Your task to perform on an android device: turn off notifications in google photos Image 0: 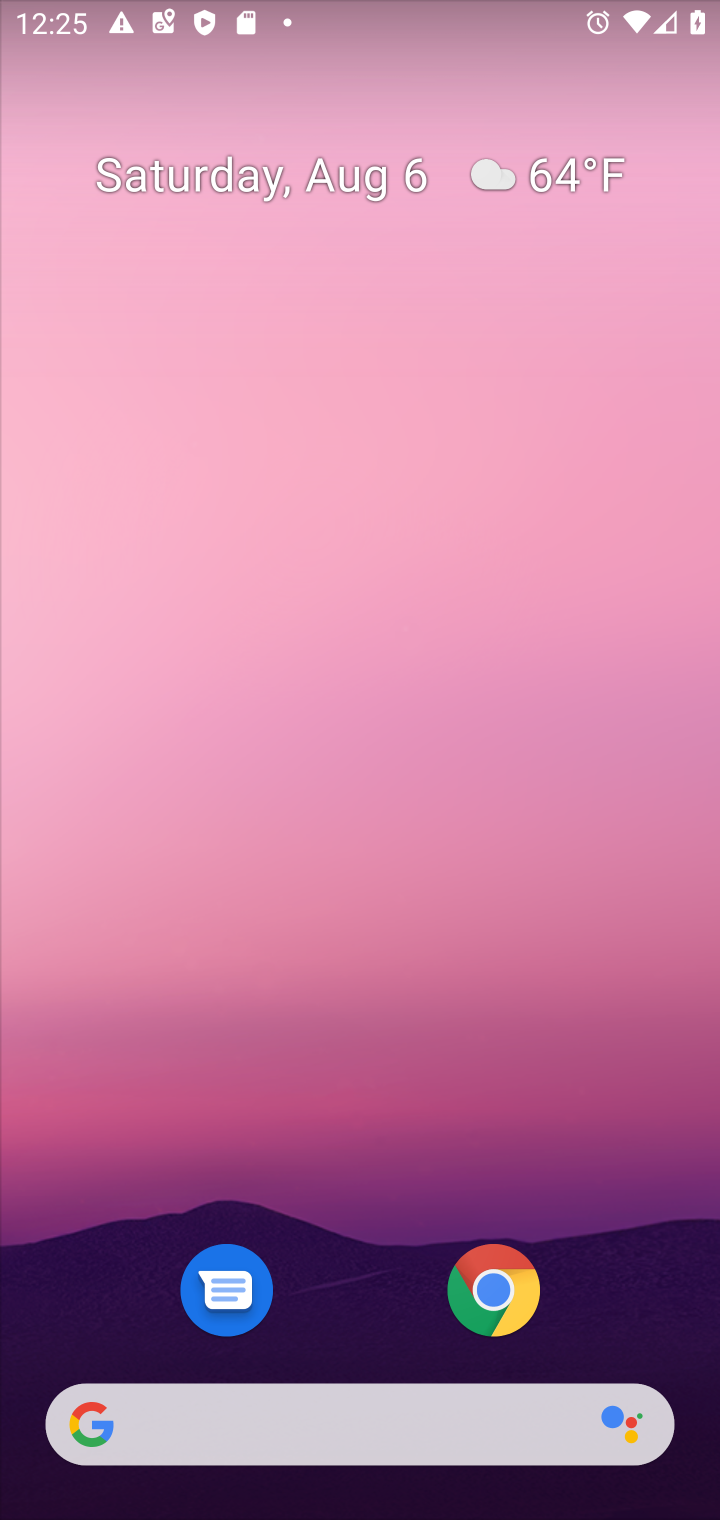
Step 0: press home button
Your task to perform on an android device: turn off notifications in google photos Image 1: 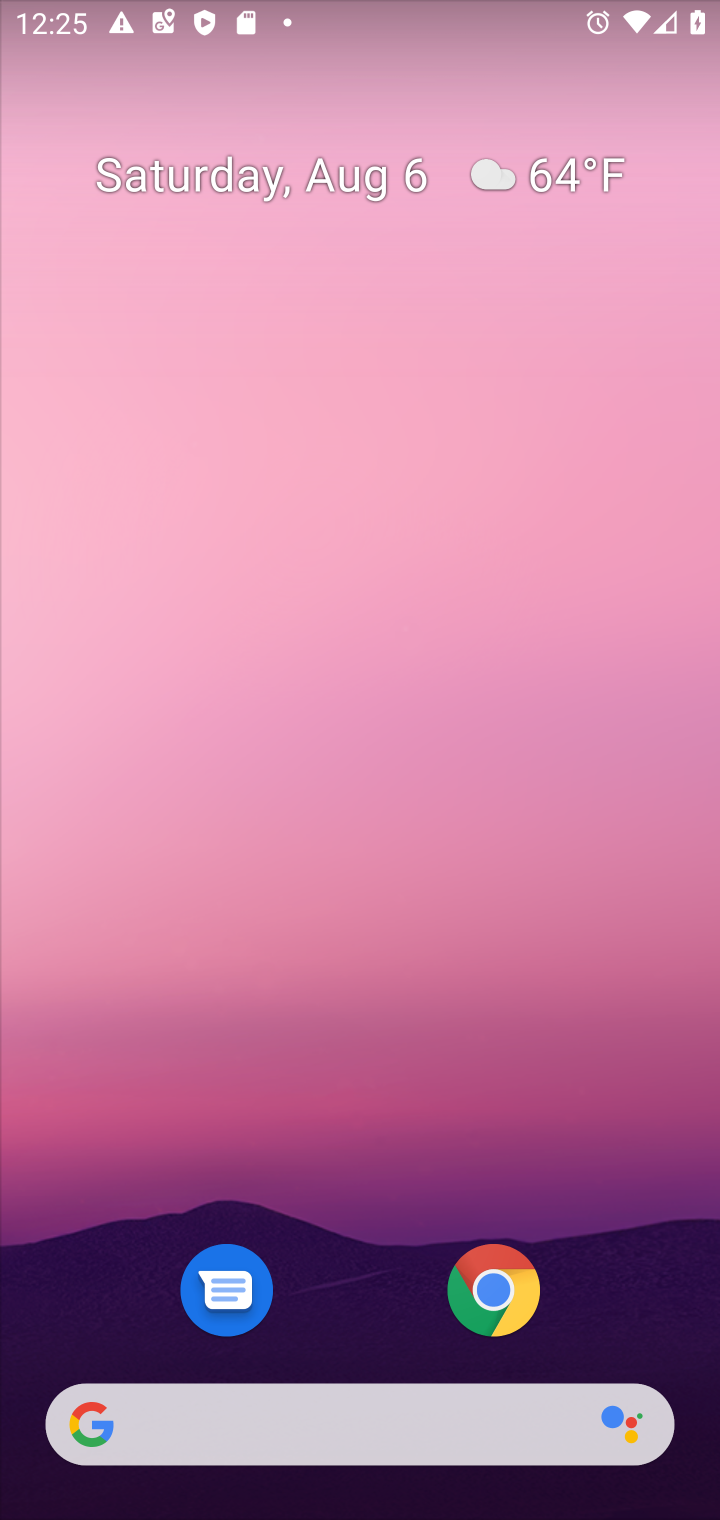
Step 1: drag from (388, 1330) to (384, 104)
Your task to perform on an android device: turn off notifications in google photos Image 2: 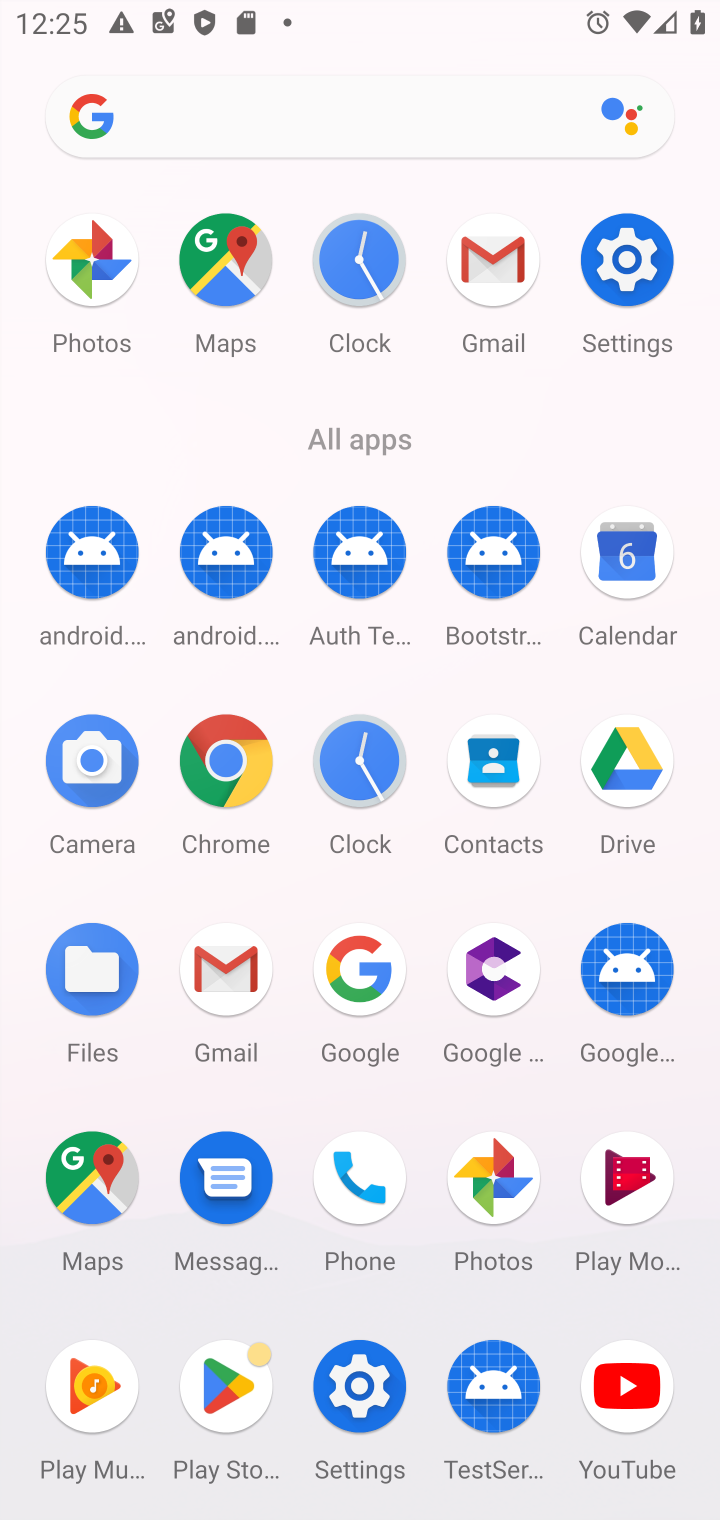
Step 2: click (487, 1157)
Your task to perform on an android device: turn off notifications in google photos Image 3: 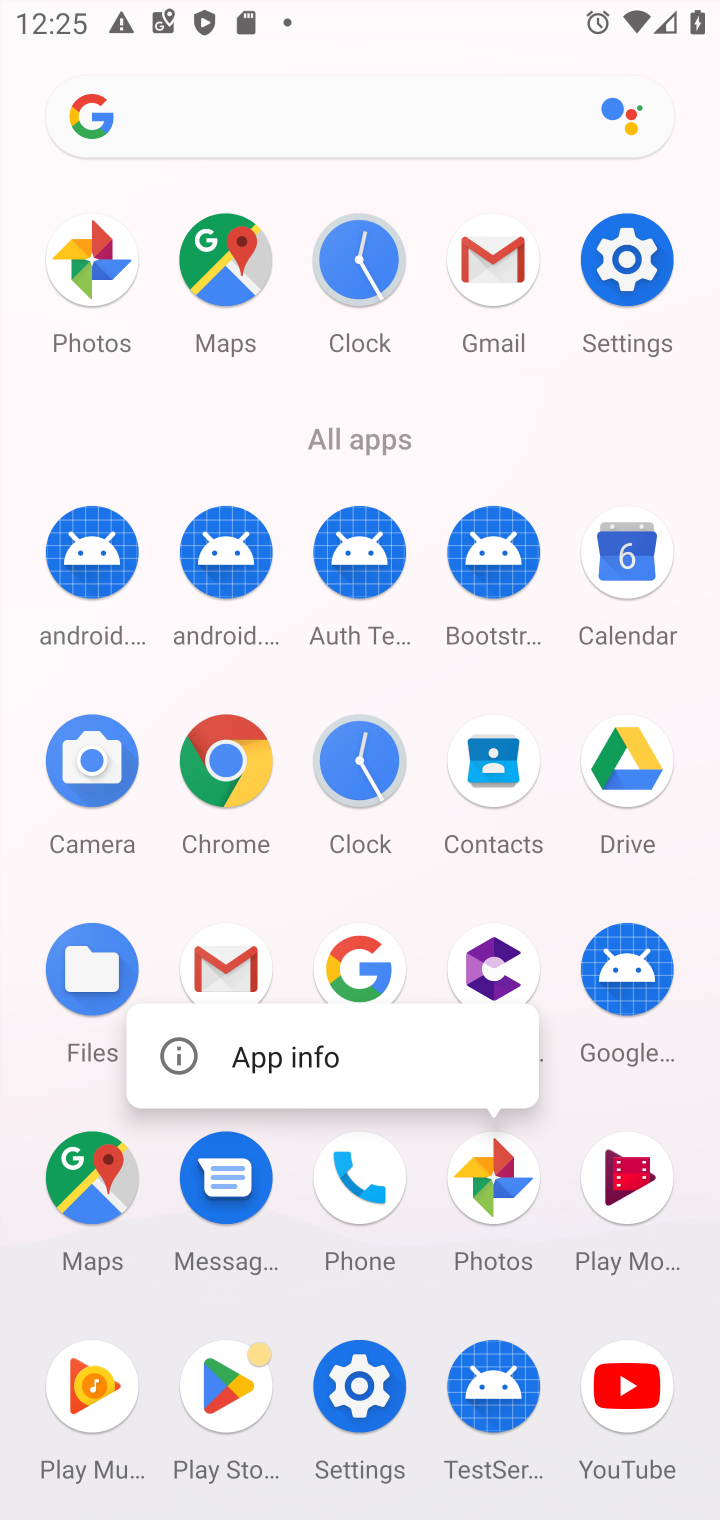
Step 3: click (489, 1168)
Your task to perform on an android device: turn off notifications in google photos Image 4: 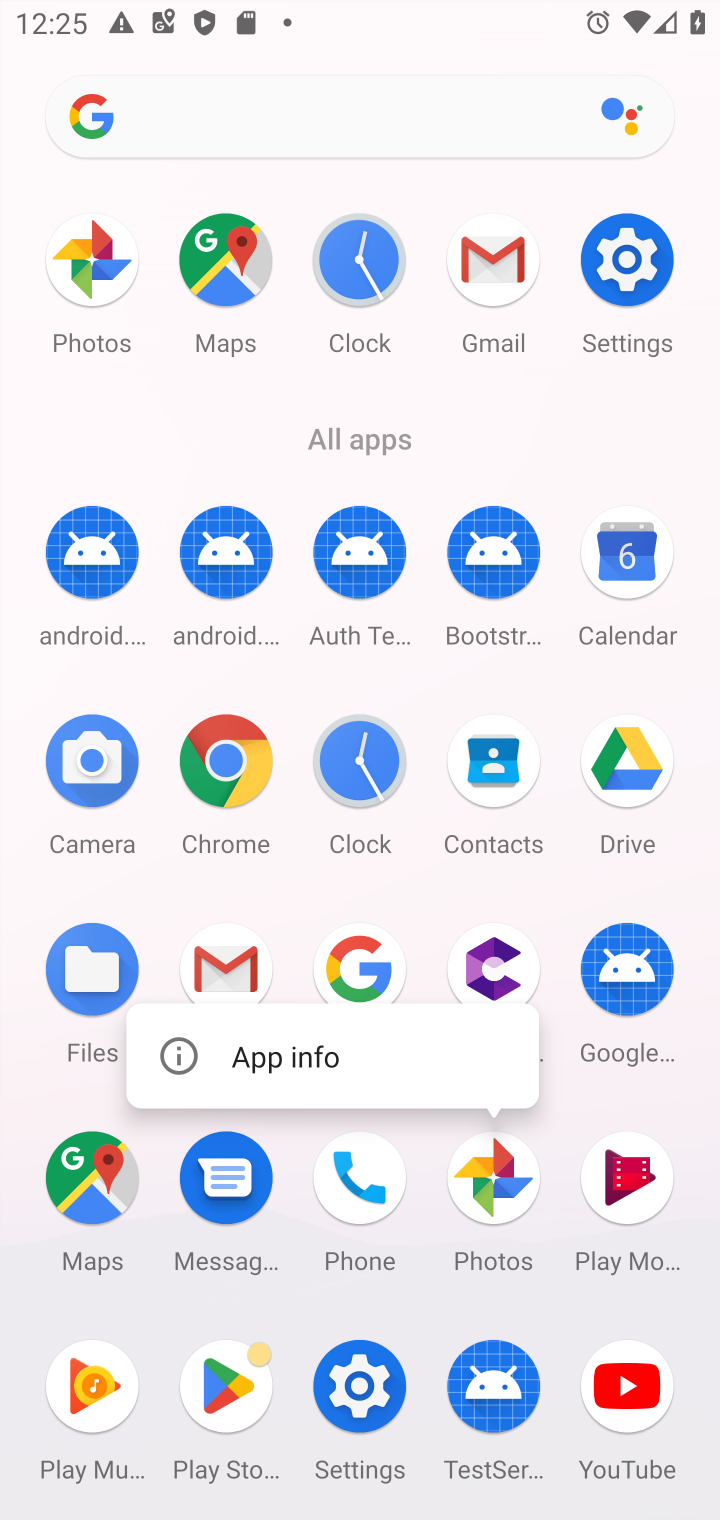
Step 4: click (492, 1174)
Your task to perform on an android device: turn off notifications in google photos Image 5: 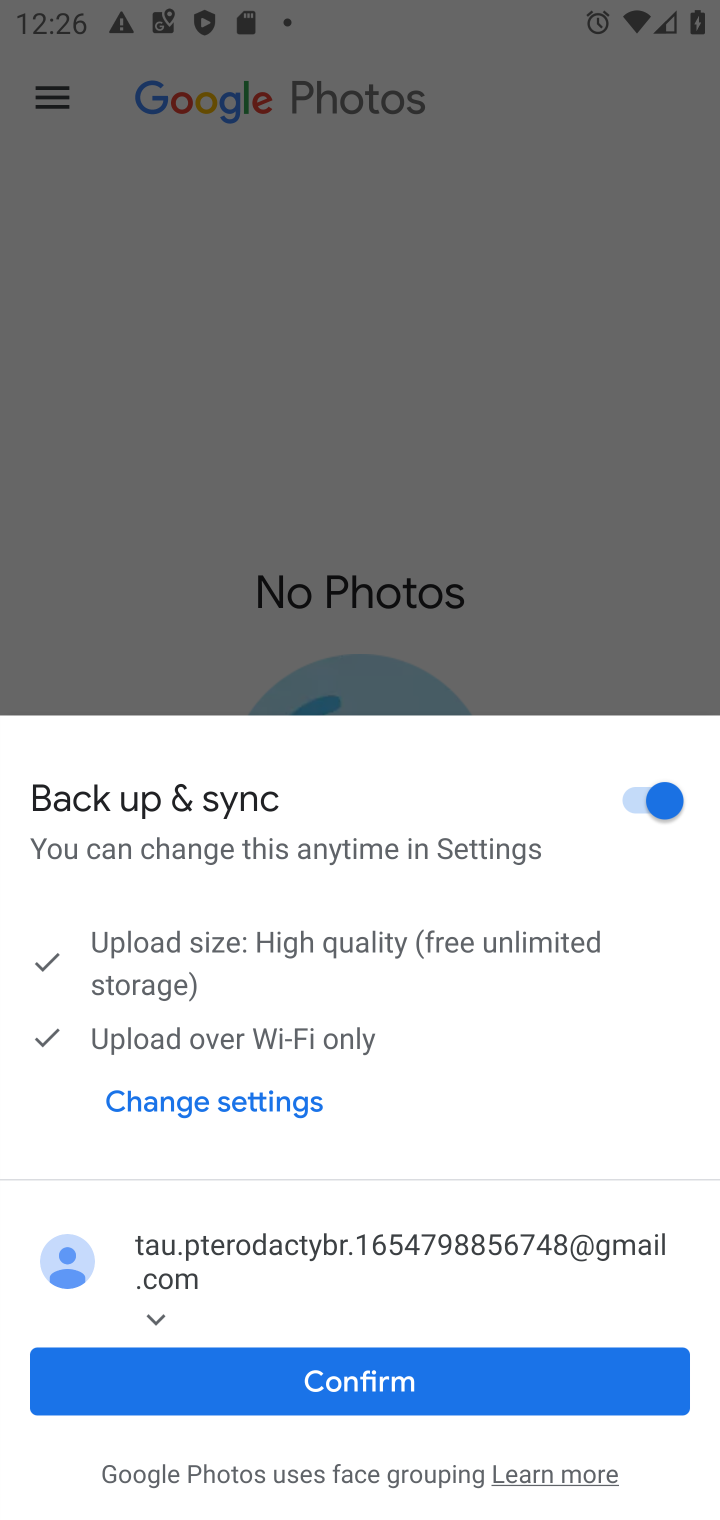
Step 5: click (367, 1371)
Your task to perform on an android device: turn off notifications in google photos Image 6: 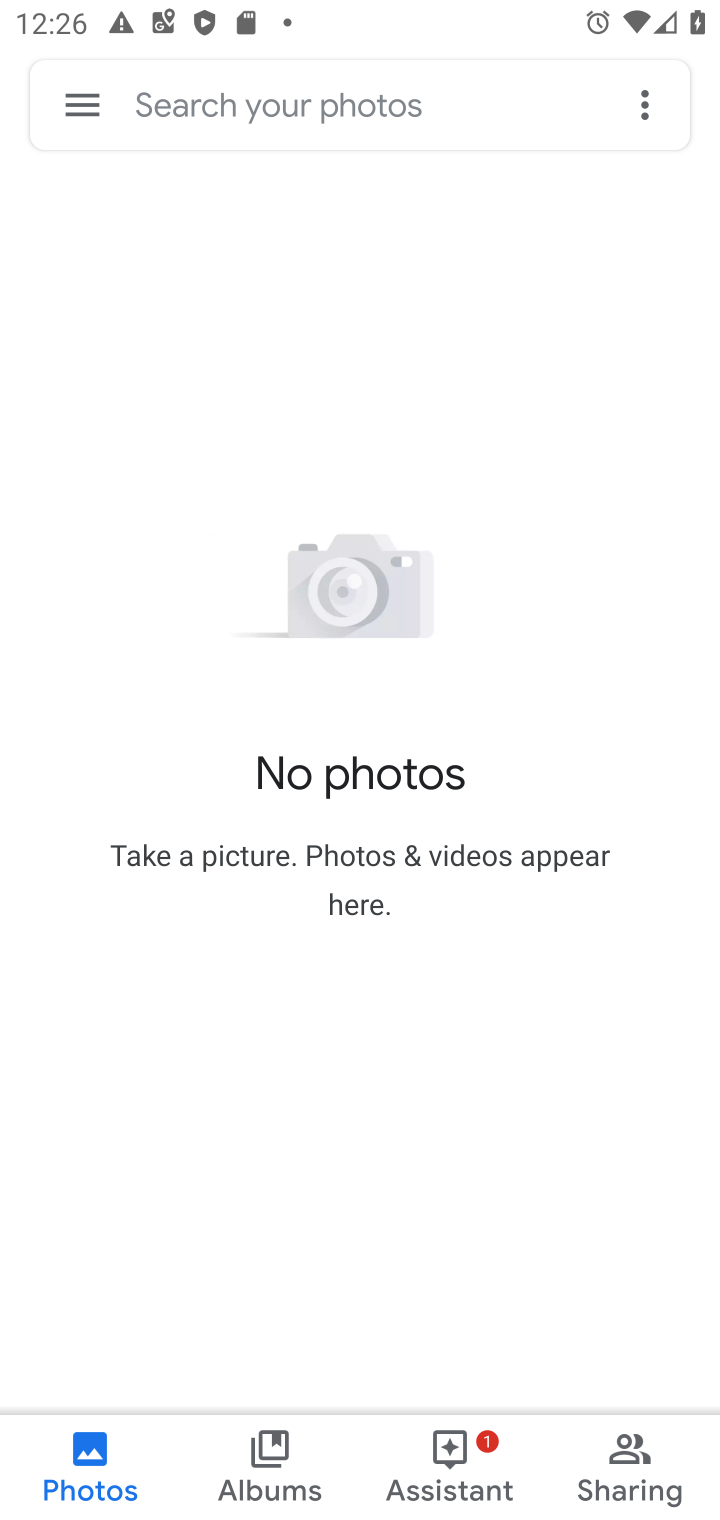
Step 6: click (74, 104)
Your task to perform on an android device: turn off notifications in google photos Image 7: 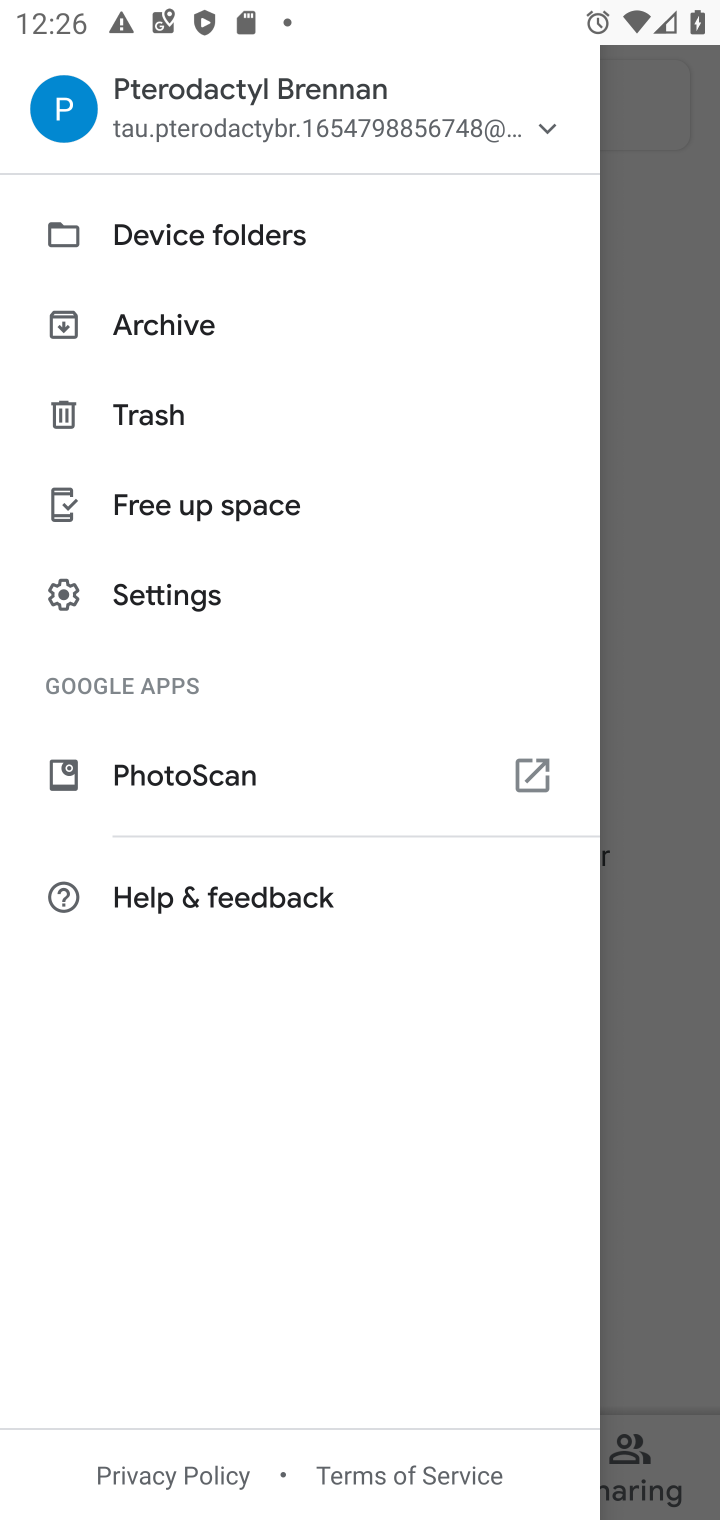
Step 7: click (205, 601)
Your task to perform on an android device: turn off notifications in google photos Image 8: 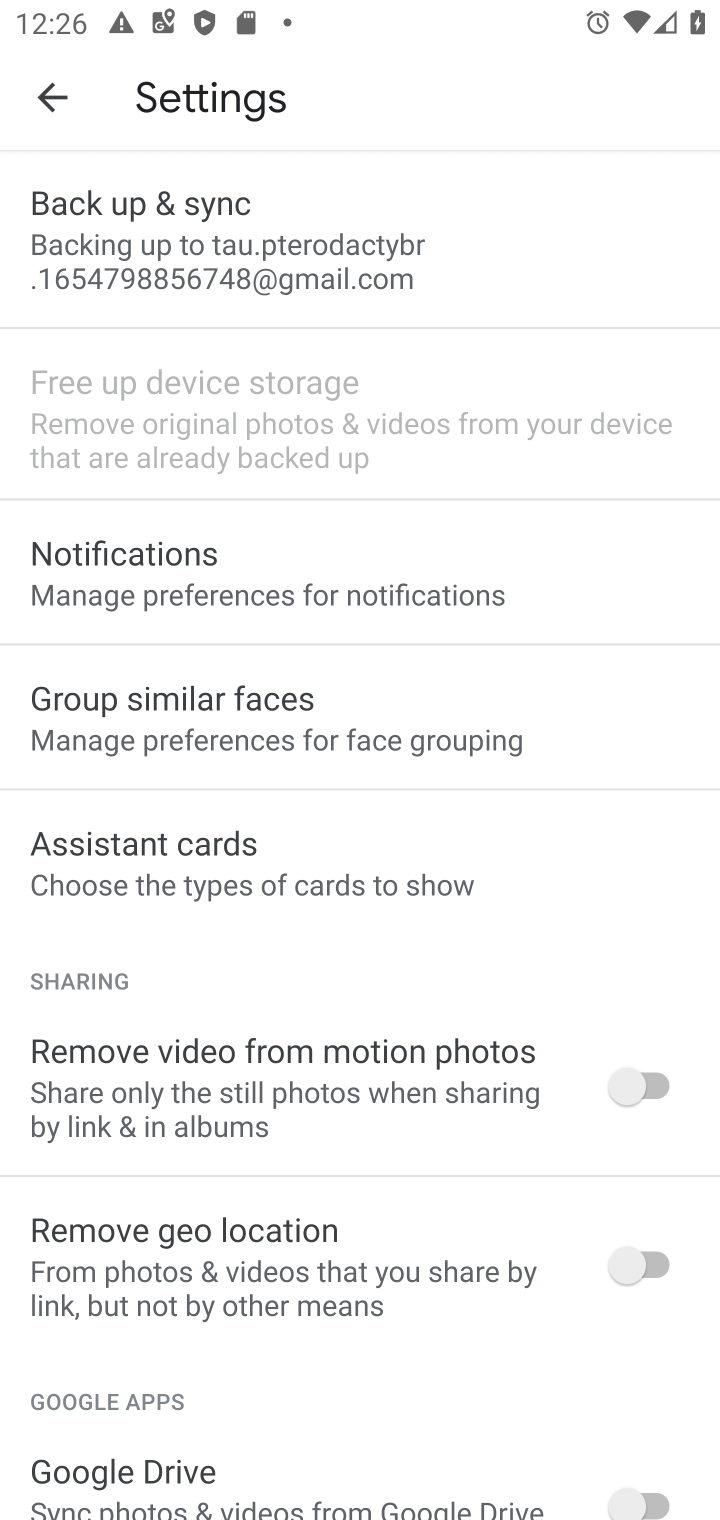
Step 8: click (262, 561)
Your task to perform on an android device: turn off notifications in google photos Image 9: 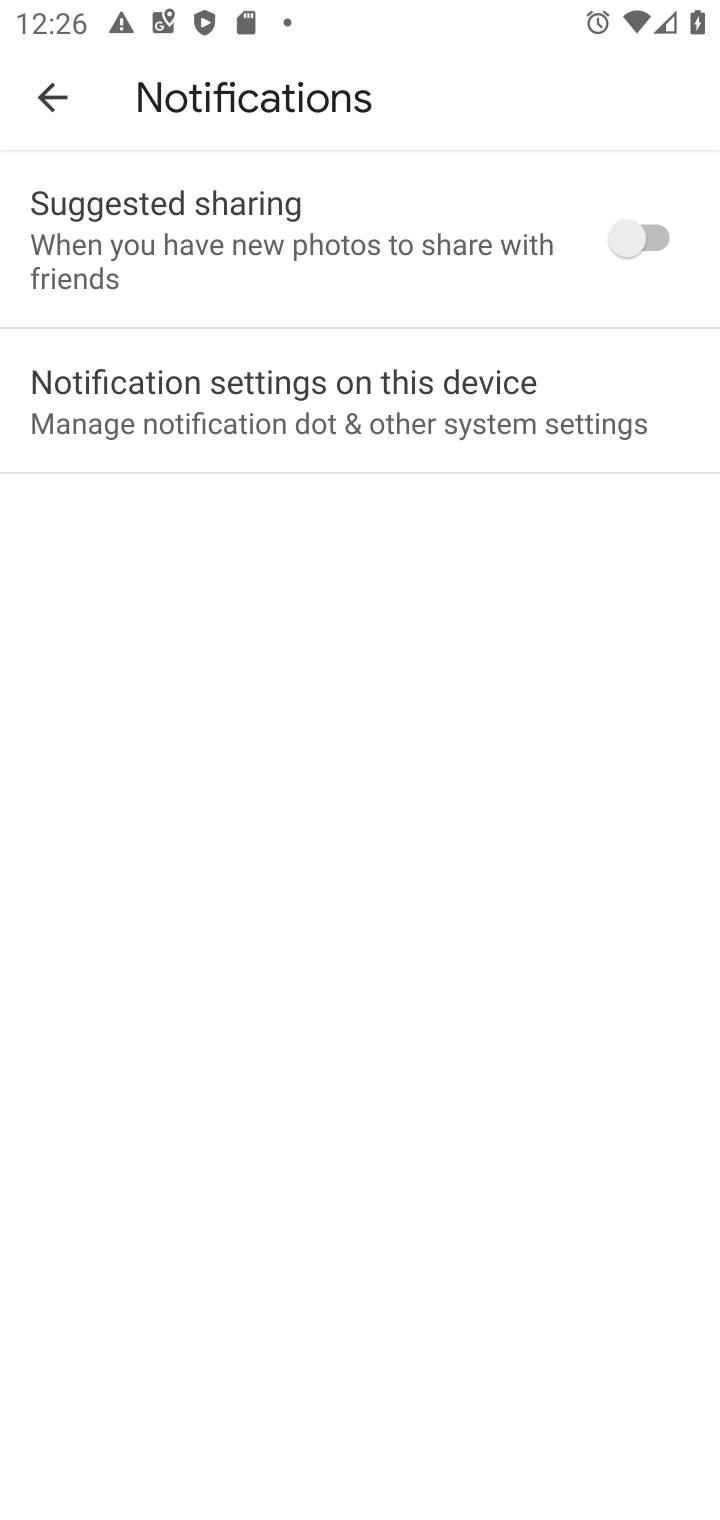
Step 9: click (545, 385)
Your task to perform on an android device: turn off notifications in google photos Image 10: 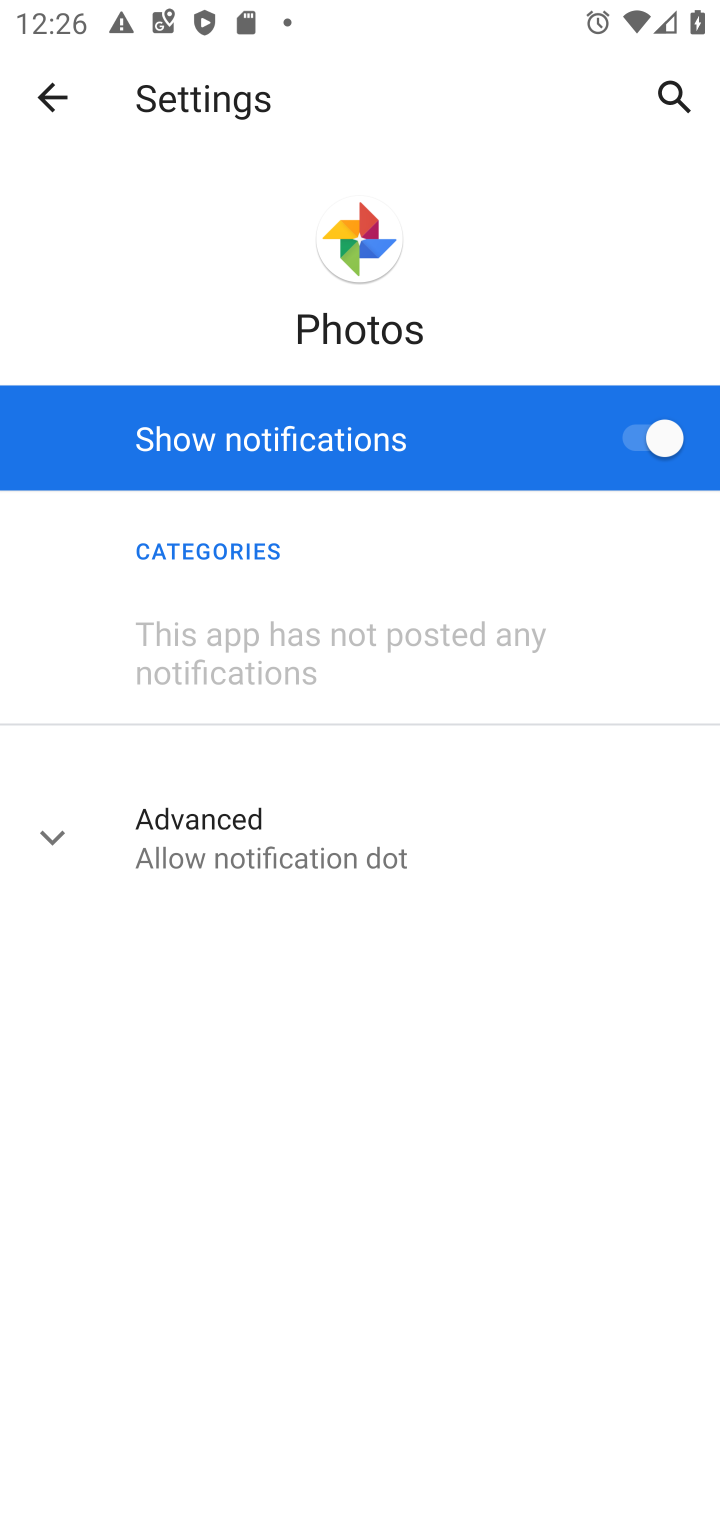
Step 10: click (642, 431)
Your task to perform on an android device: turn off notifications in google photos Image 11: 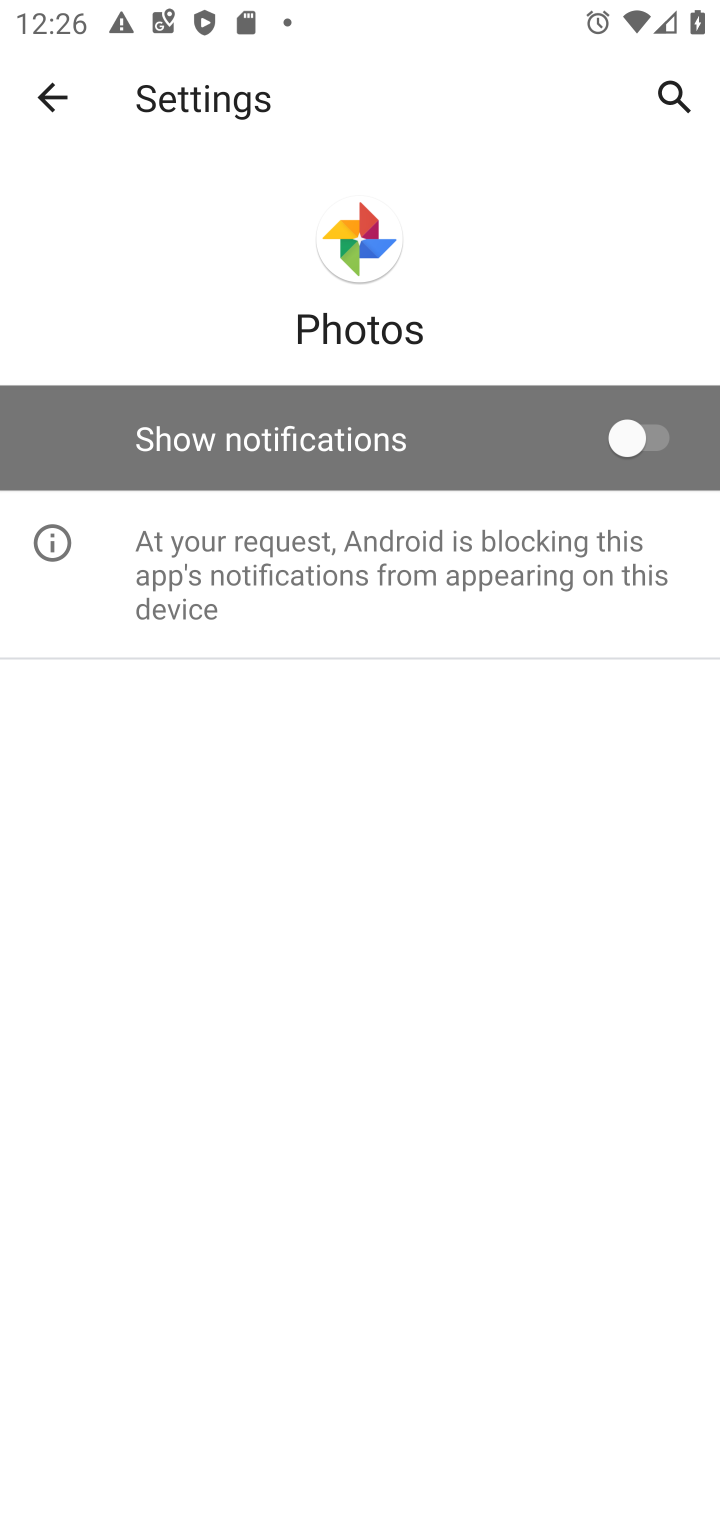
Step 11: task complete